Your task to perform on an android device: open a new tab in the chrome app Image 0: 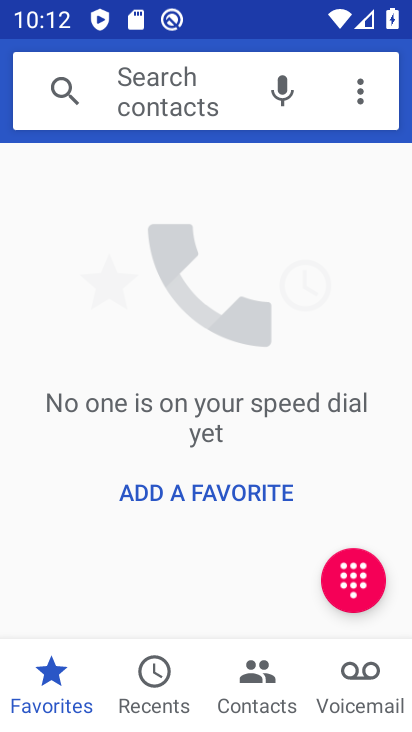
Step 0: press home button
Your task to perform on an android device: open a new tab in the chrome app Image 1: 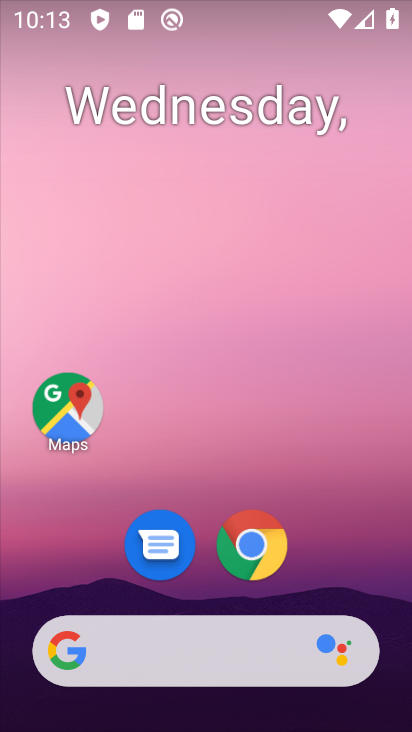
Step 1: click (261, 552)
Your task to perform on an android device: open a new tab in the chrome app Image 2: 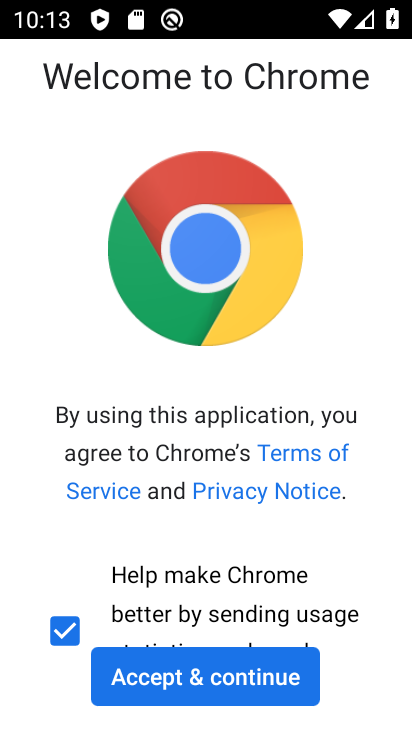
Step 2: click (183, 686)
Your task to perform on an android device: open a new tab in the chrome app Image 3: 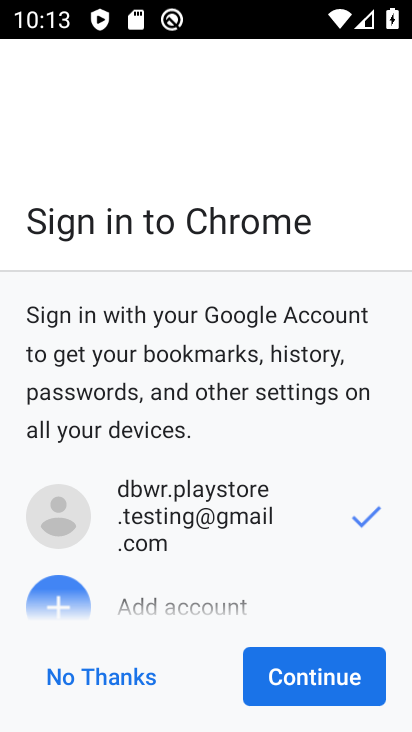
Step 3: click (310, 685)
Your task to perform on an android device: open a new tab in the chrome app Image 4: 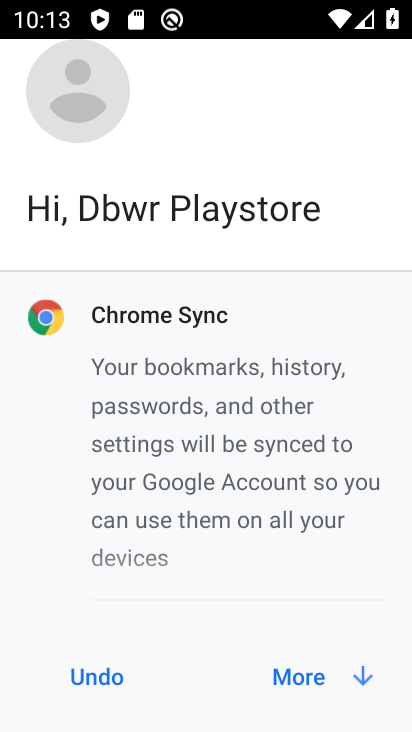
Step 4: click (332, 671)
Your task to perform on an android device: open a new tab in the chrome app Image 5: 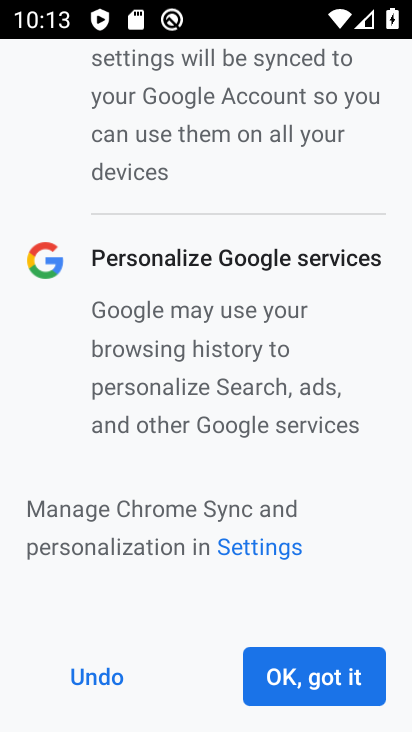
Step 5: click (313, 676)
Your task to perform on an android device: open a new tab in the chrome app Image 6: 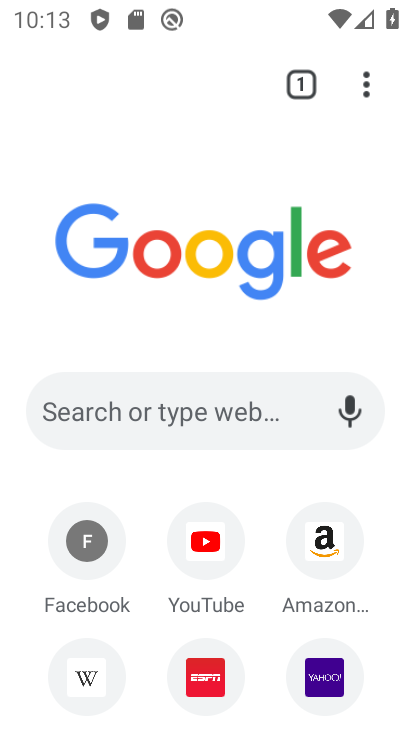
Step 6: click (362, 83)
Your task to perform on an android device: open a new tab in the chrome app Image 7: 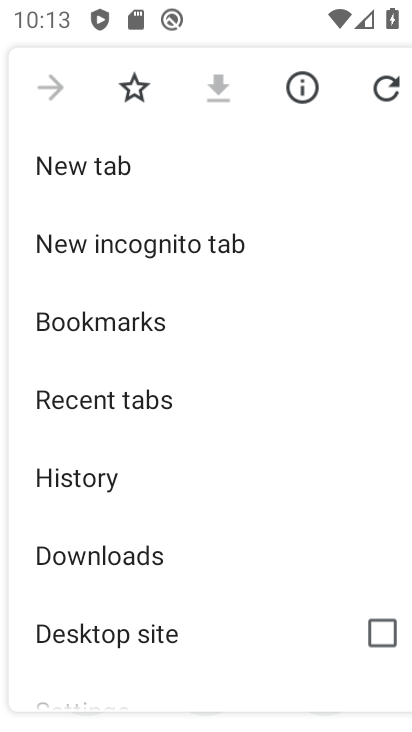
Step 7: click (145, 189)
Your task to perform on an android device: open a new tab in the chrome app Image 8: 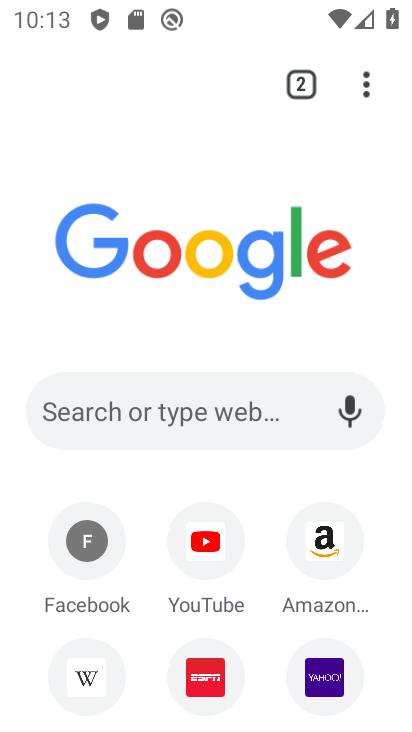
Step 8: task complete